Your task to perform on an android device: change alarm snooze length Image 0: 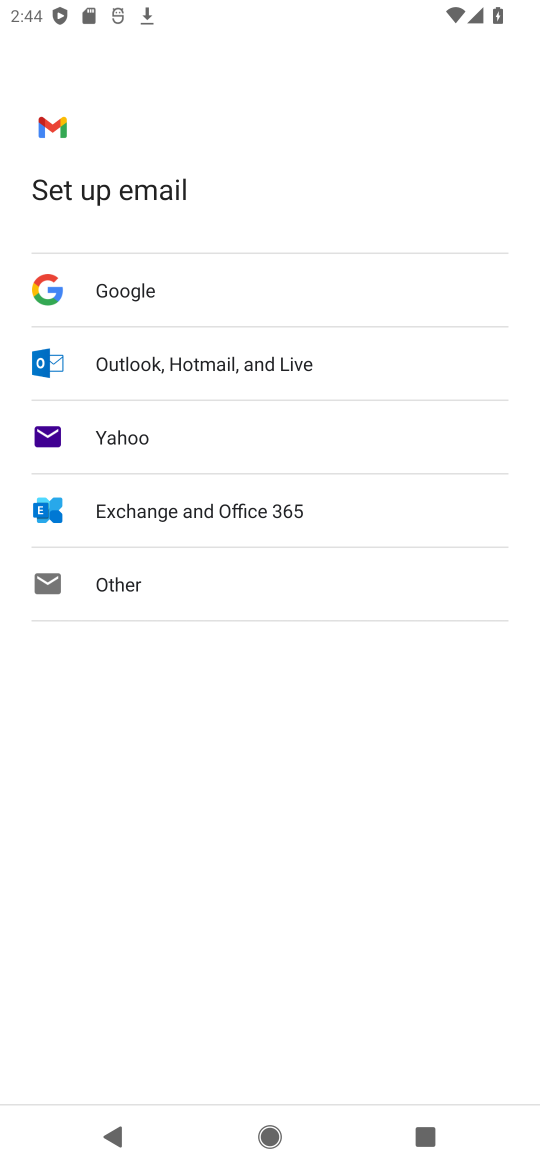
Step 0: click (275, 1132)
Your task to perform on an android device: change alarm snooze length Image 1: 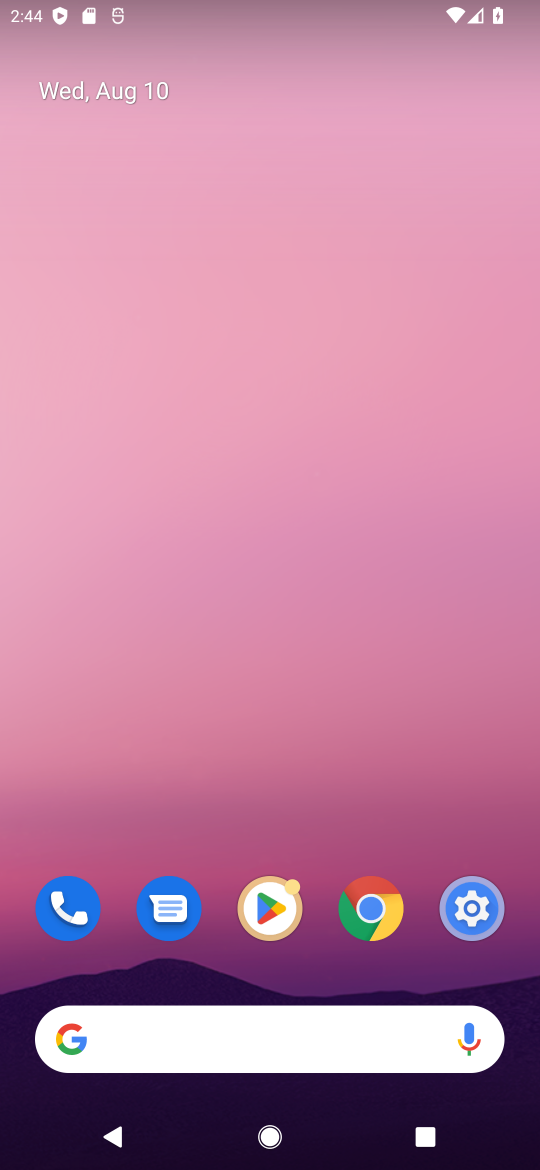
Step 1: drag from (326, 971) to (181, 146)
Your task to perform on an android device: change alarm snooze length Image 2: 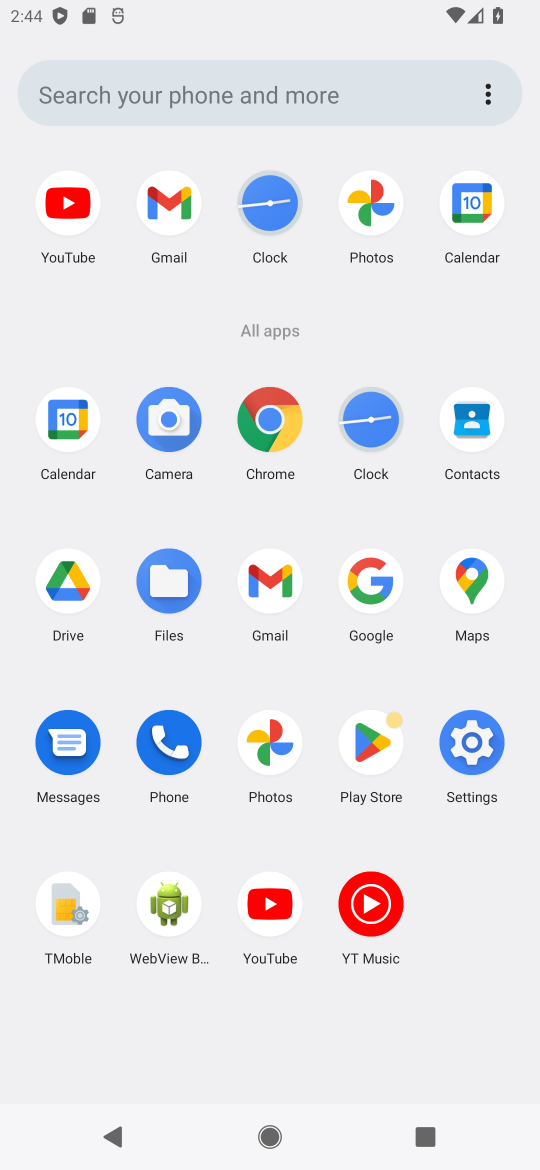
Step 2: click (285, 206)
Your task to perform on an android device: change alarm snooze length Image 3: 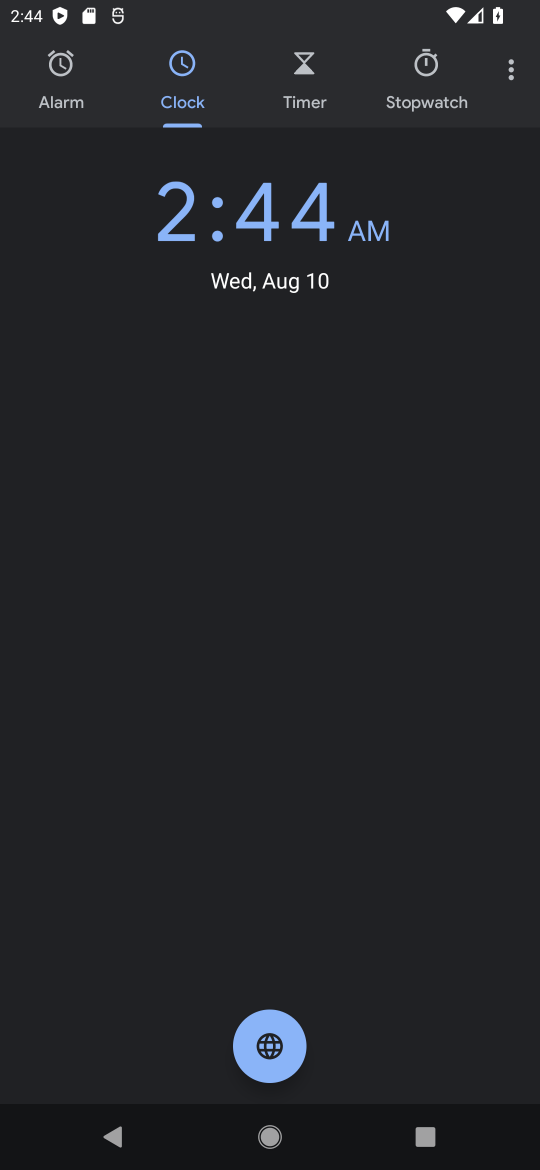
Step 3: click (520, 68)
Your task to perform on an android device: change alarm snooze length Image 4: 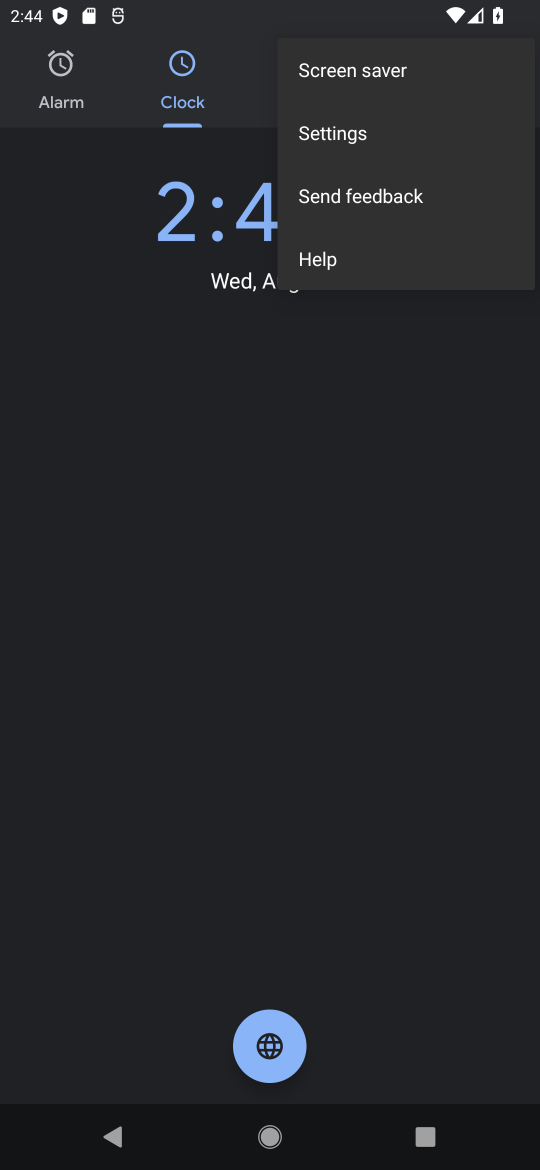
Step 4: click (353, 132)
Your task to perform on an android device: change alarm snooze length Image 5: 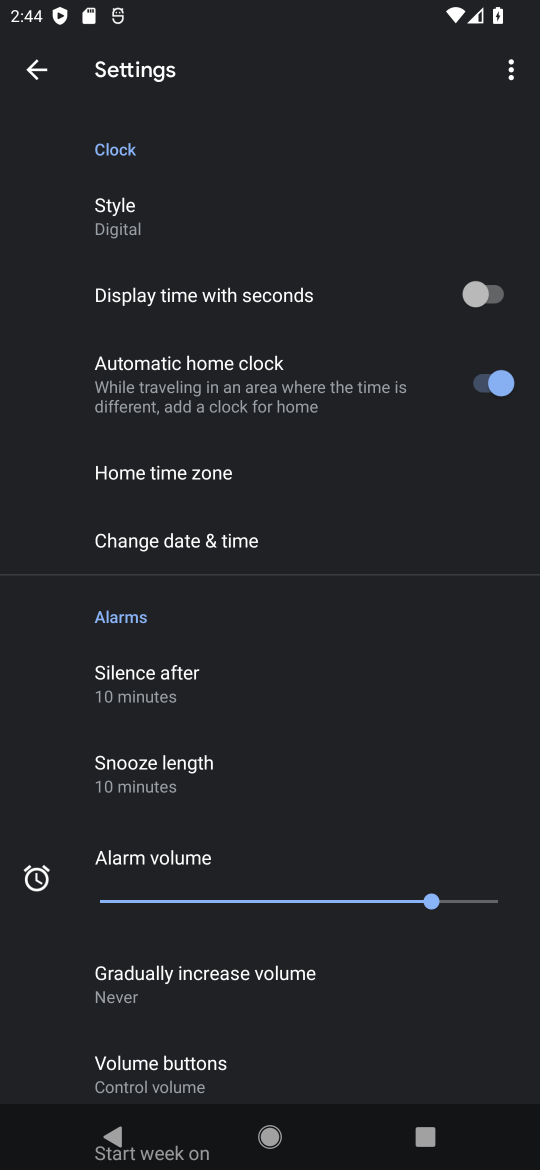
Step 5: click (201, 773)
Your task to perform on an android device: change alarm snooze length Image 6: 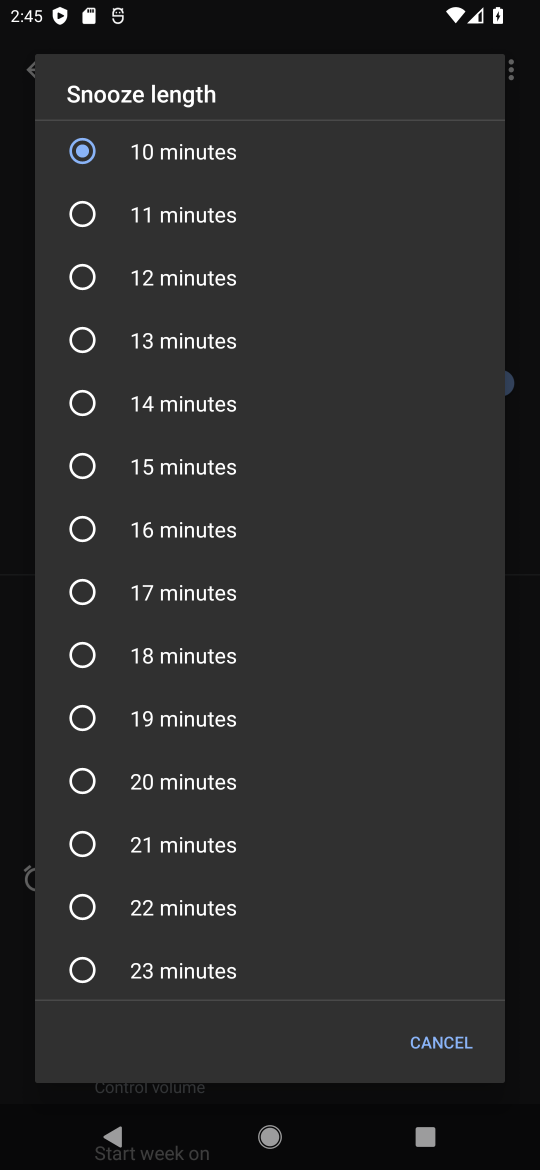
Step 6: click (87, 213)
Your task to perform on an android device: change alarm snooze length Image 7: 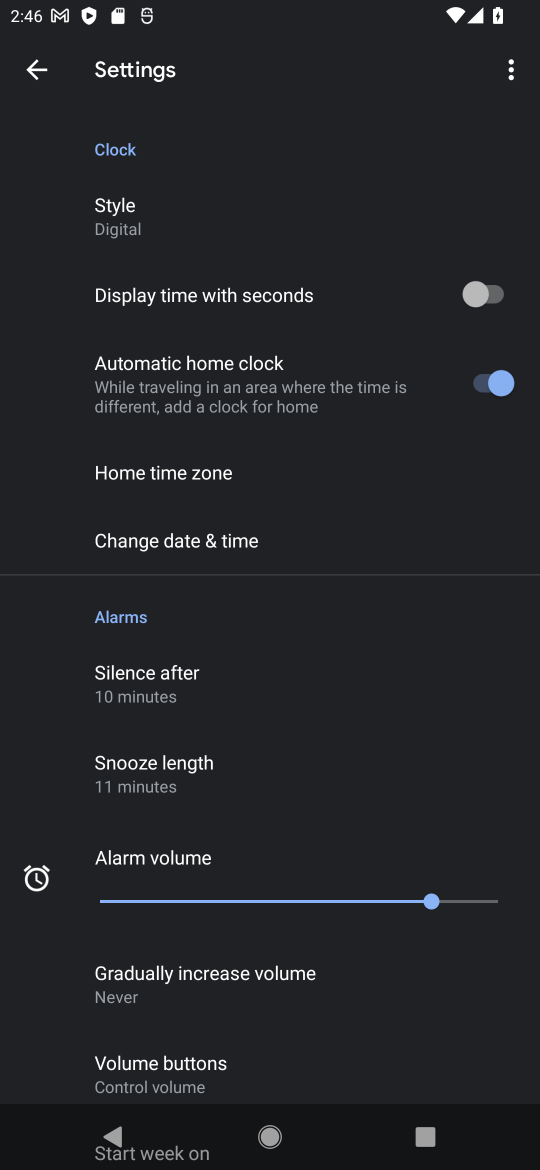
Step 7: task complete